Your task to perform on an android device: change your default location settings in chrome Image 0: 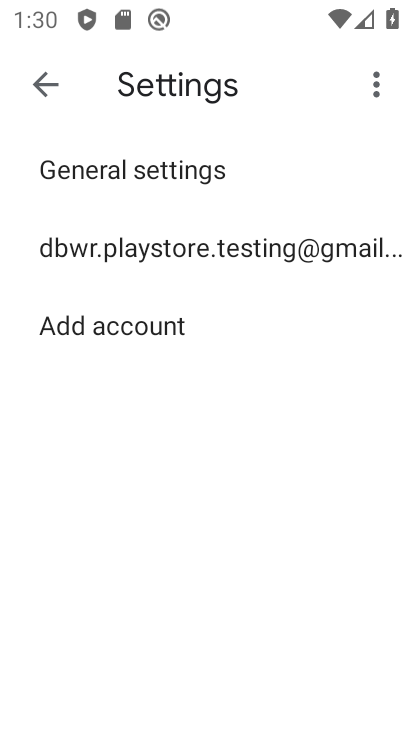
Step 0: press home button
Your task to perform on an android device: change your default location settings in chrome Image 1: 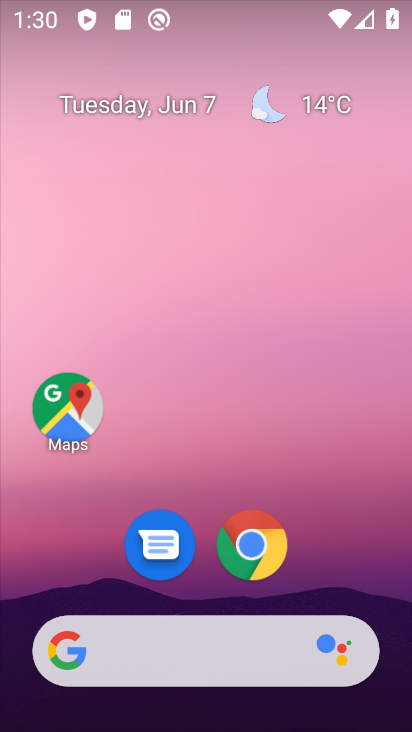
Step 1: click (253, 564)
Your task to perform on an android device: change your default location settings in chrome Image 2: 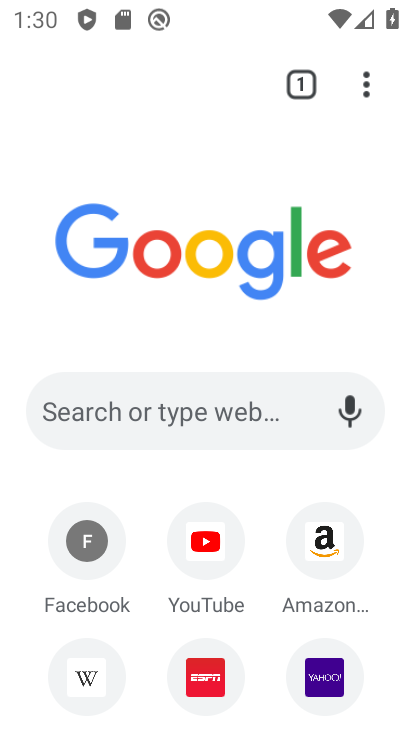
Step 2: click (370, 91)
Your task to perform on an android device: change your default location settings in chrome Image 3: 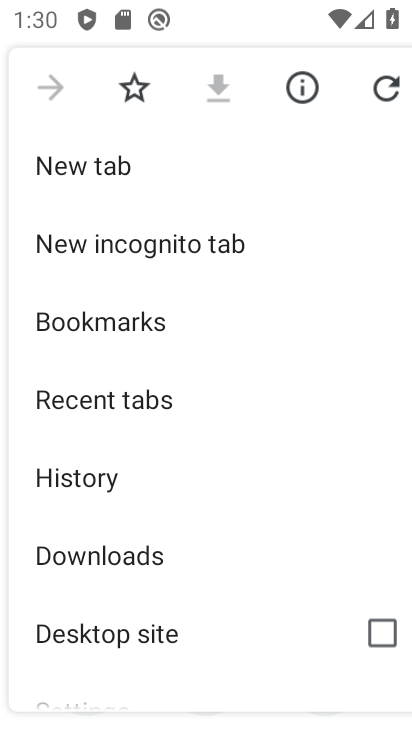
Step 3: drag from (228, 567) to (193, 154)
Your task to perform on an android device: change your default location settings in chrome Image 4: 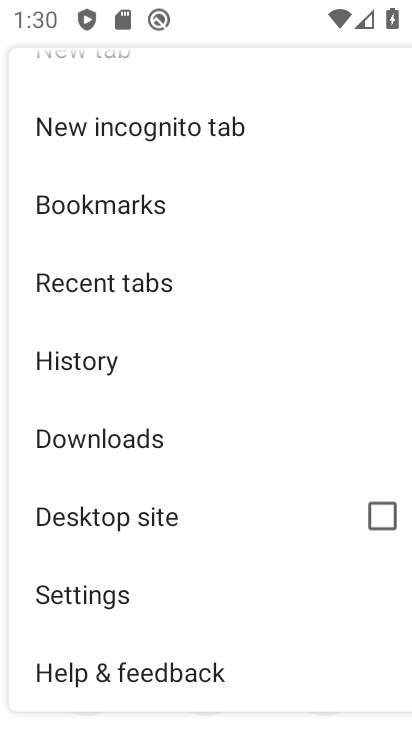
Step 4: click (163, 589)
Your task to perform on an android device: change your default location settings in chrome Image 5: 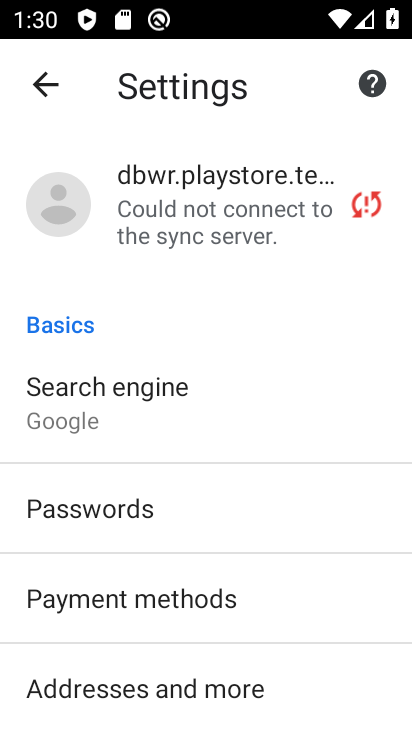
Step 5: drag from (226, 637) to (234, 170)
Your task to perform on an android device: change your default location settings in chrome Image 6: 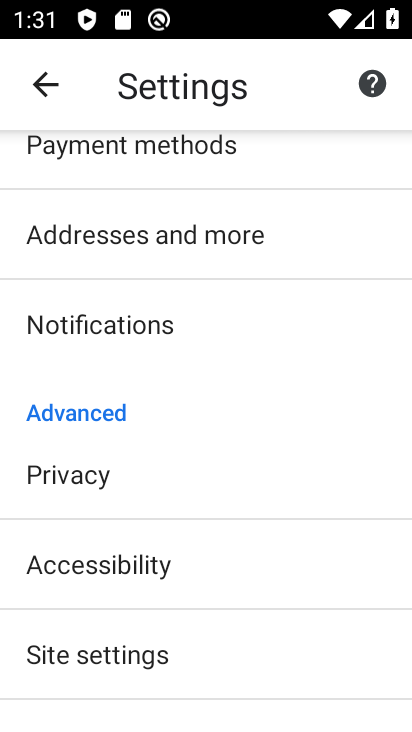
Step 6: click (159, 652)
Your task to perform on an android device: change your default location settings in chrome Image 7: 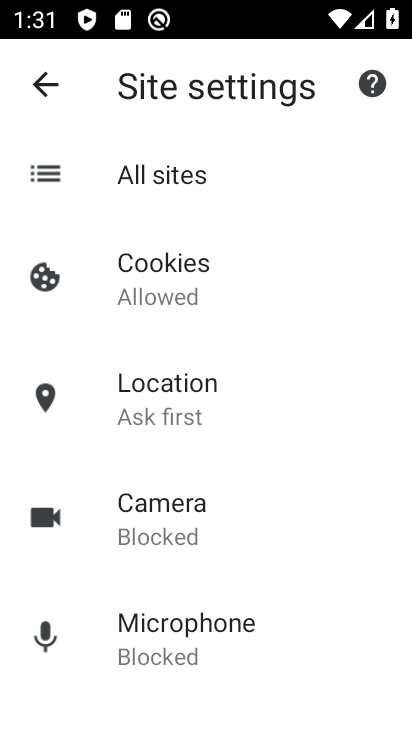
Step 7: click (221, 396)
Your task to perform on an android device: change your default location settings in chrome Image 8: 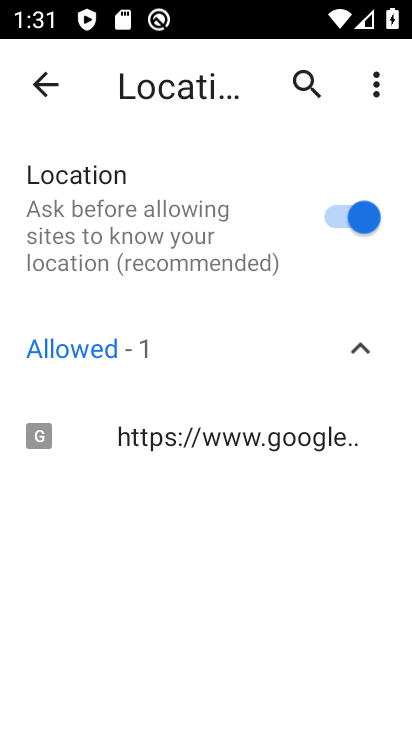
Step 8: click (347, 213)
Your task to perform on an android device: change your default location settings in chrome Image 9: 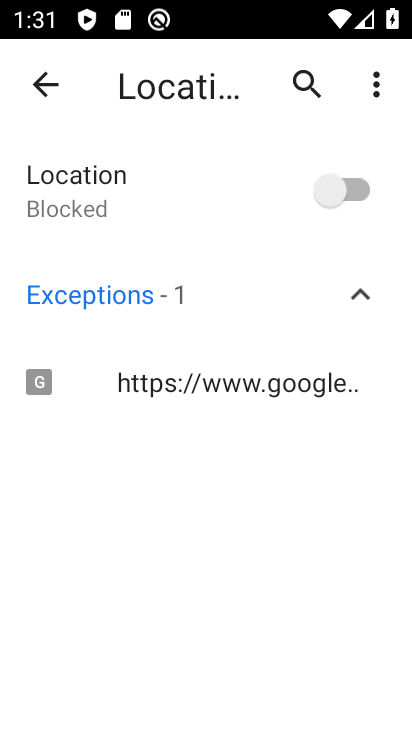
Step 9: task complete